Your task to perform on an android device: open chrome privacy settings Image 0: 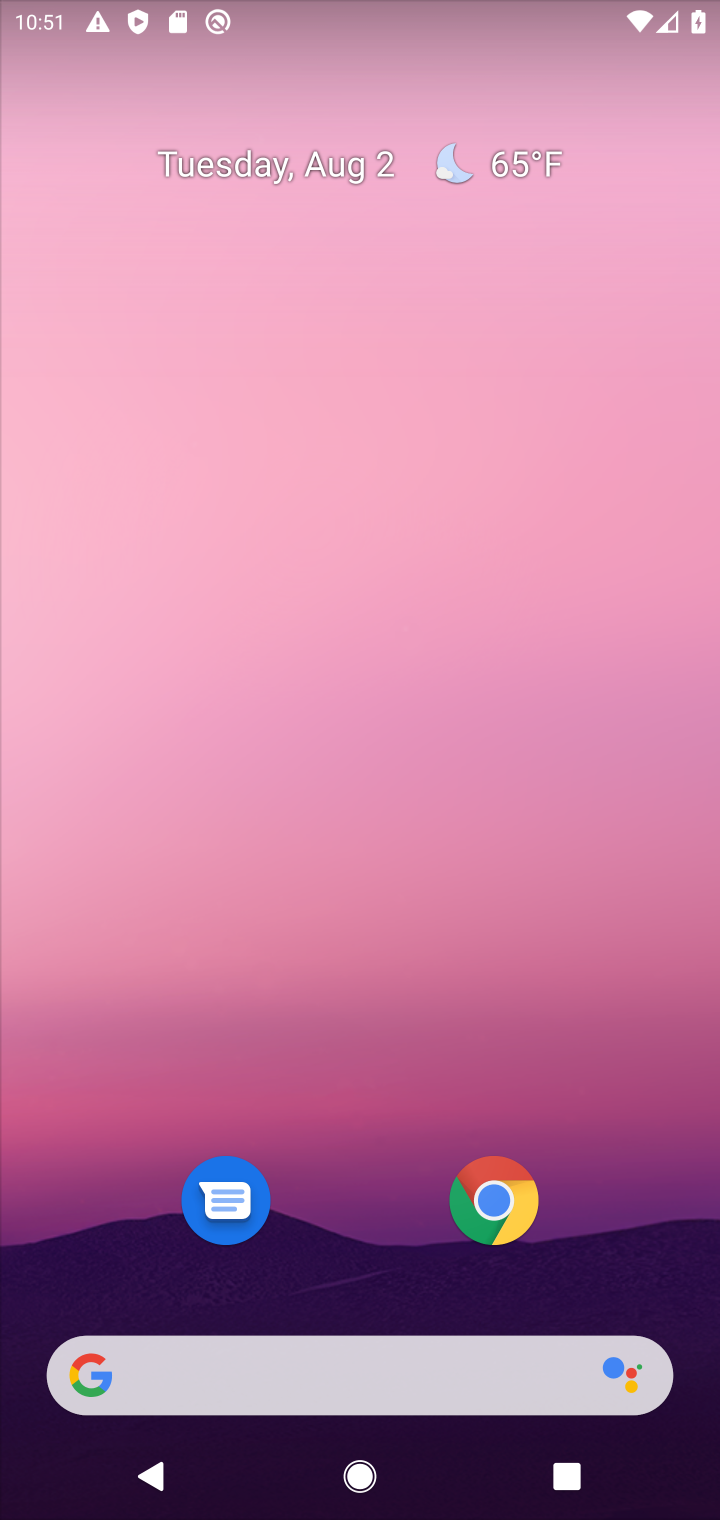
Step 0: click (495, 1199)
Your task to perform on an android device: open chrome privacy settings Image 1: 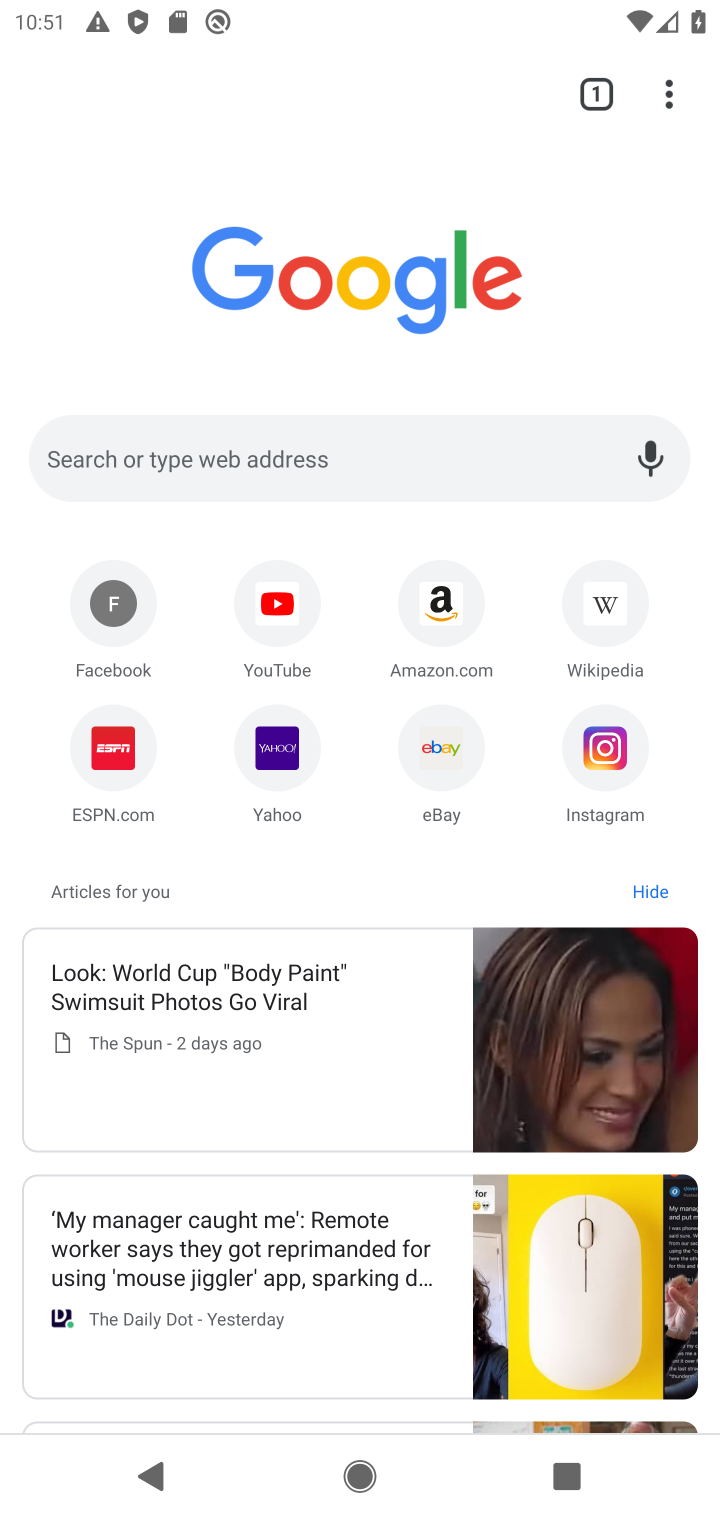
Step 1: click (667, 108)
Your task to perform on an android device: open chrome privacy settings Image 2: 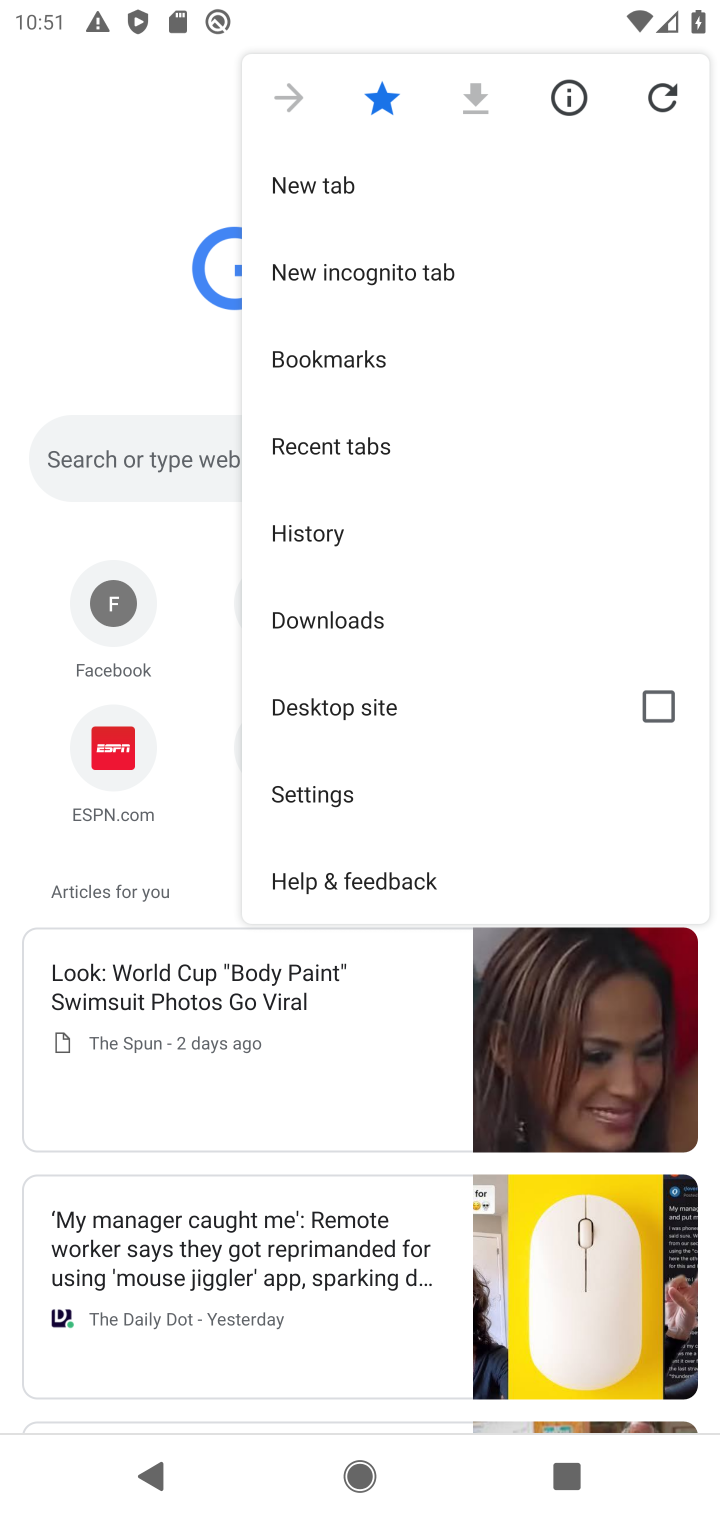
Step 2: click (343, 790)
Your task to perform on an android device: open chrome privacy settings Image 3: 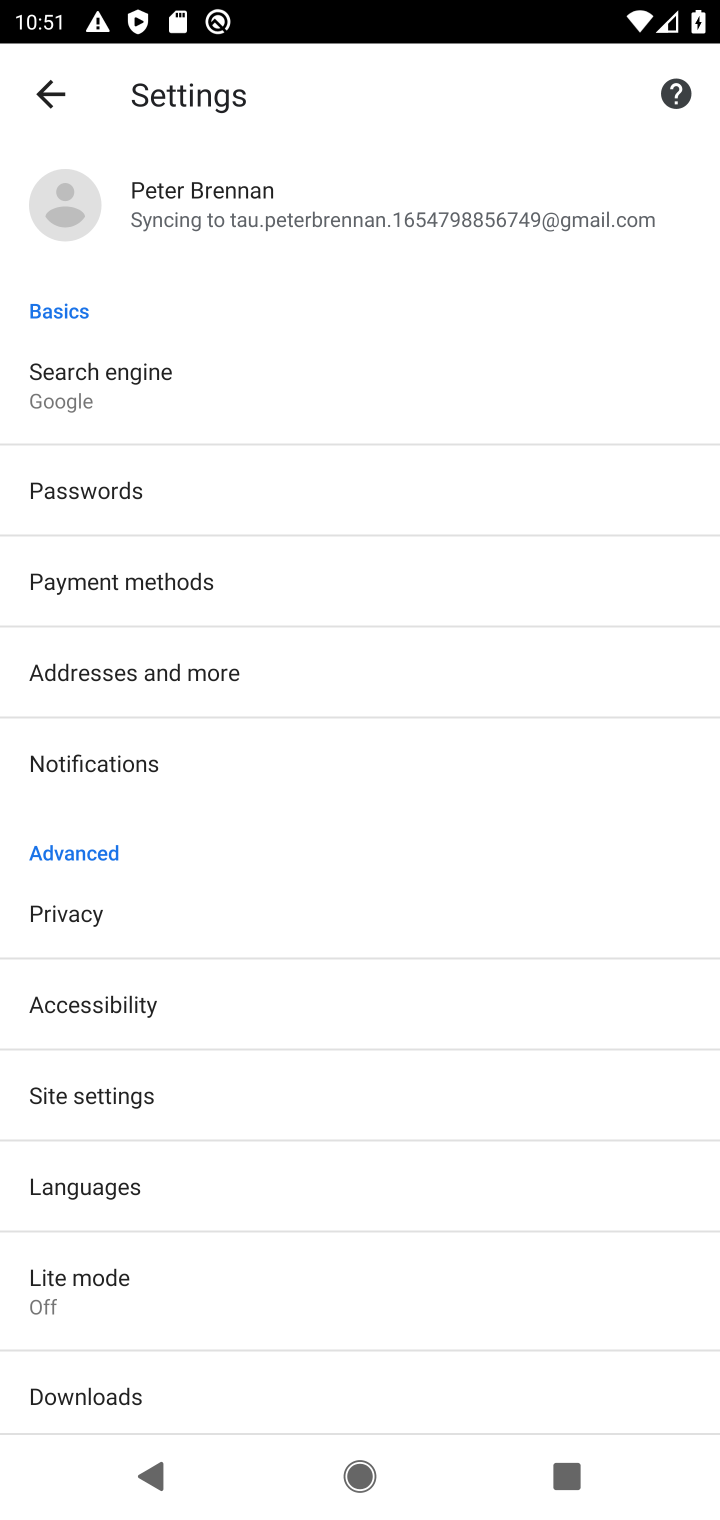
Step 3: click (84, 906)
Your task to perform on an android device: open chrome privacy settings Image 4: 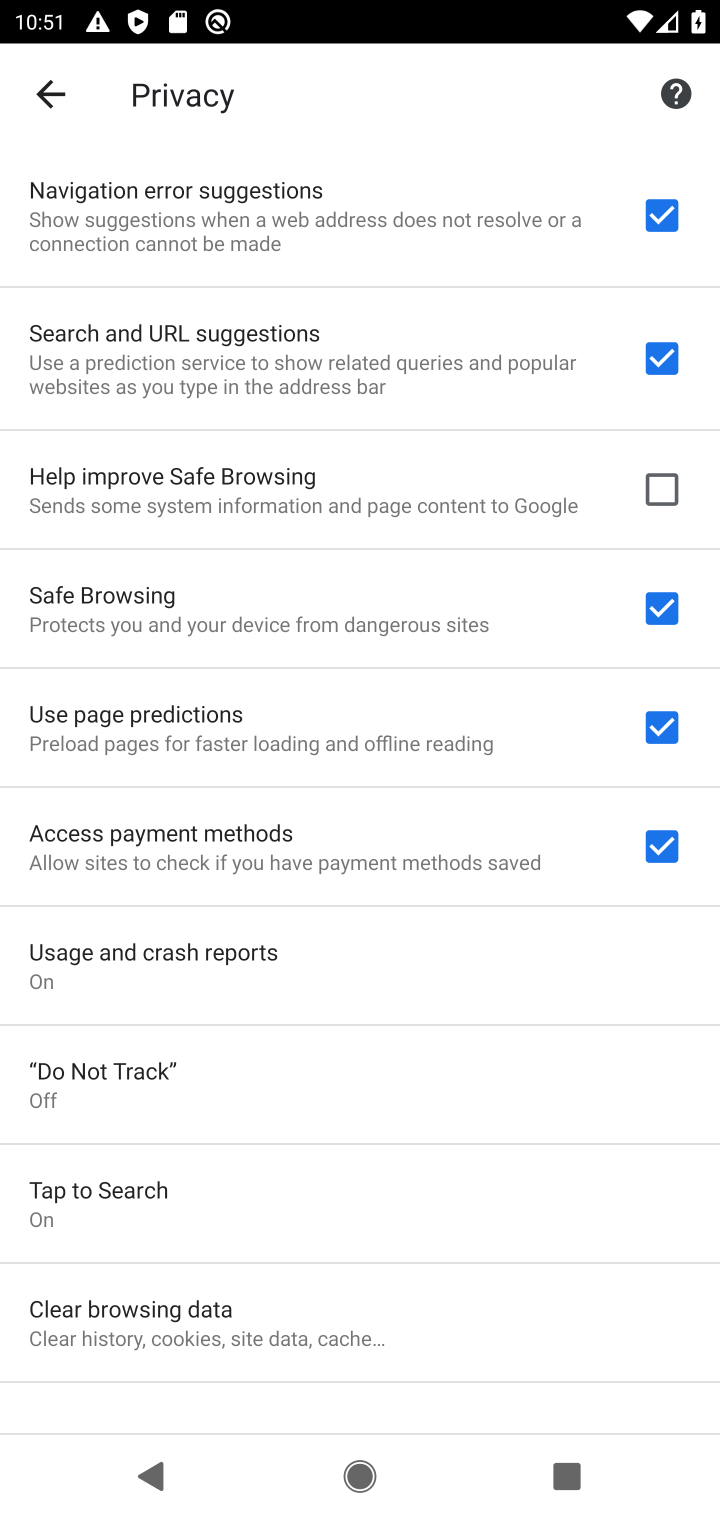
Step 4: task complete